Your task to perform on an android device: check google app version Image 0: 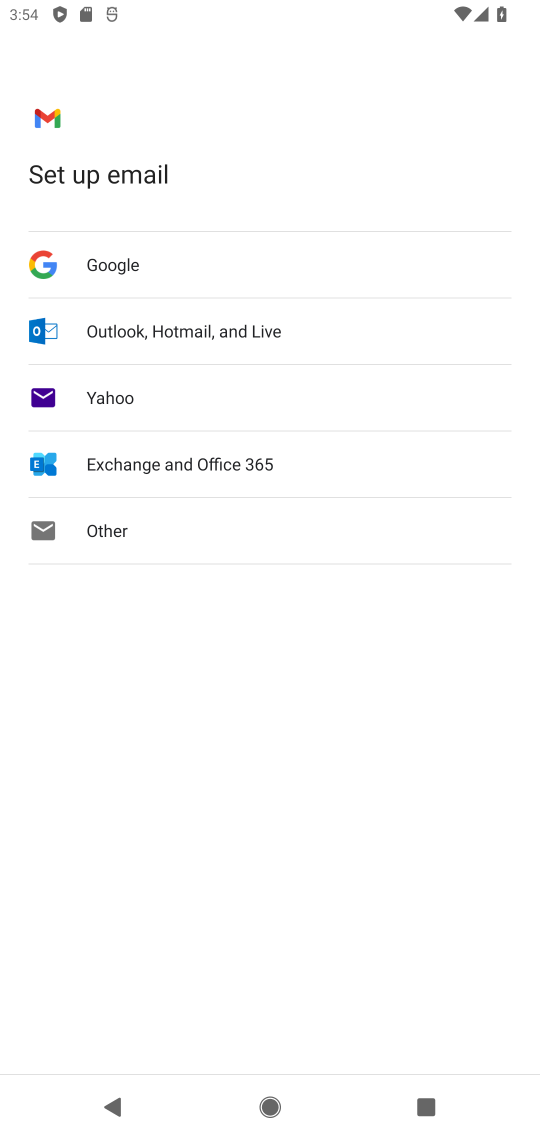
Step 0: press home button
Your task to perform on an android device: check google app version Image 1: 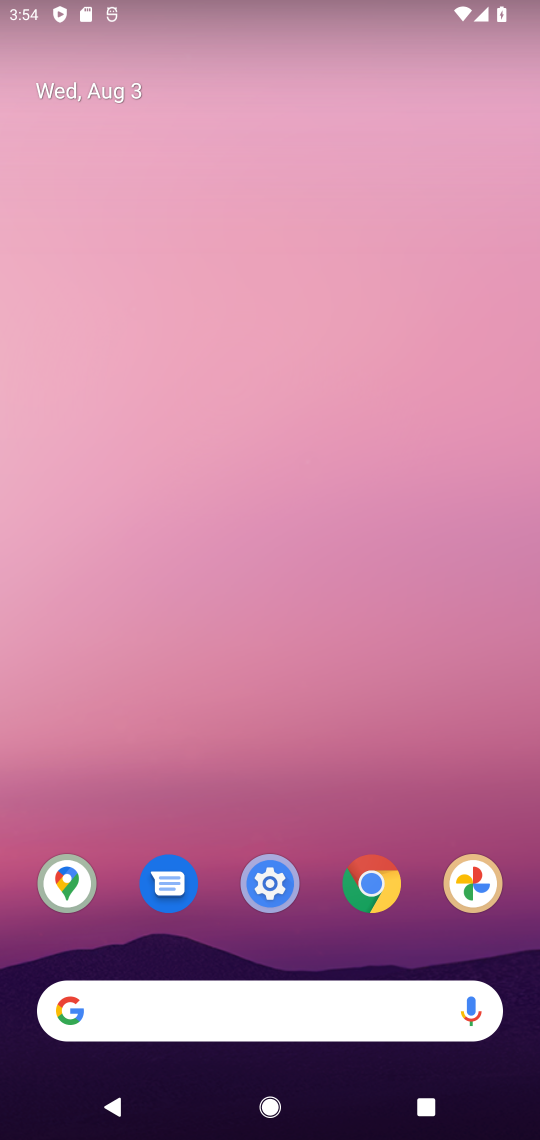
Step 1: click (75, 1005)
Your task to perform on an android device: check google app version Image 2: 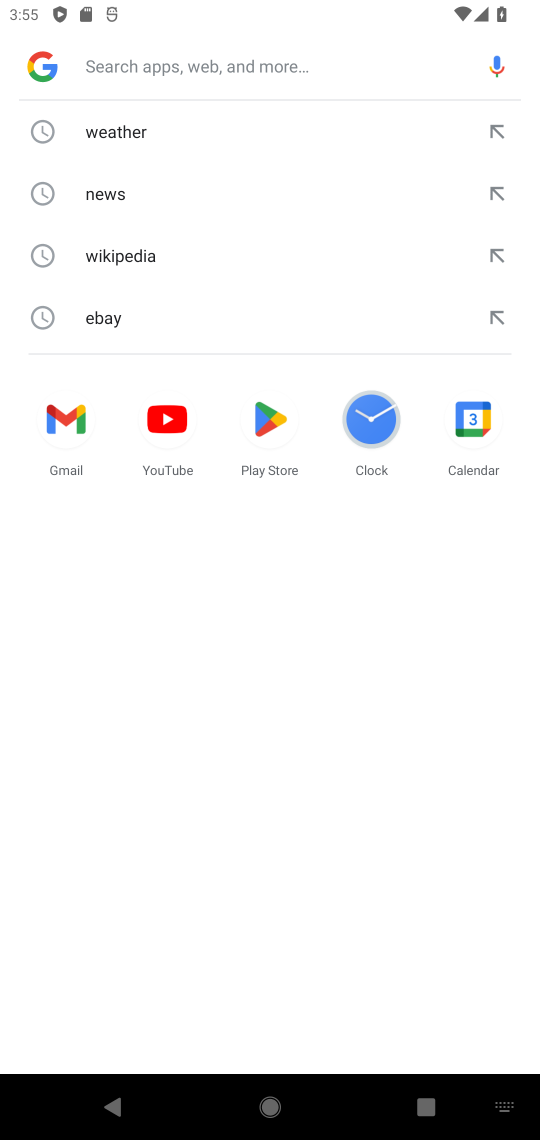
Step 2: click (38, 68)
Your task to perform on an android device: check google app version Image 3: 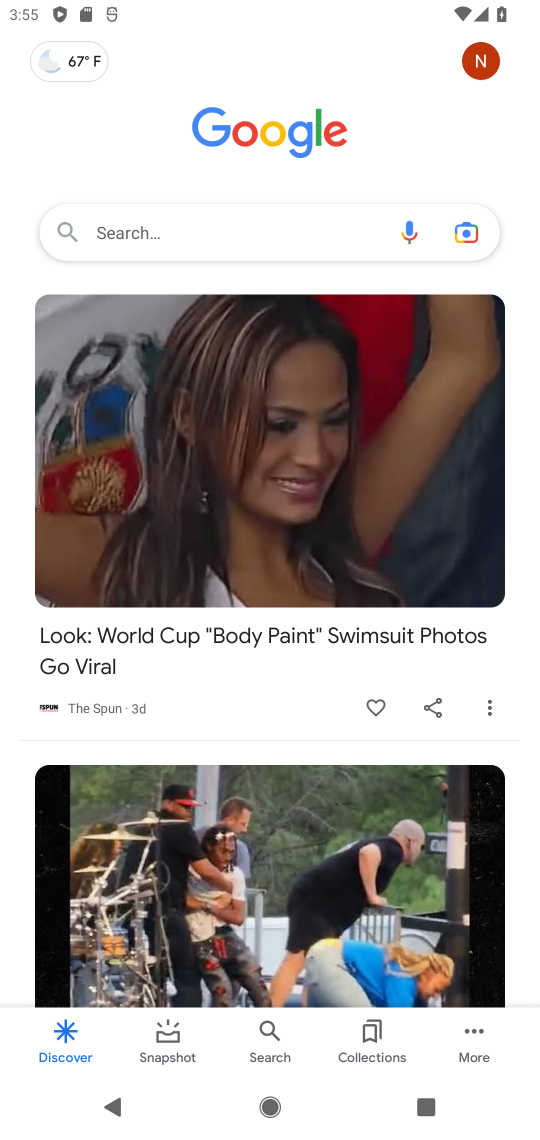
Step 3: click (469, 1060)
Your task to perform on an android device: check google app version Image 4: 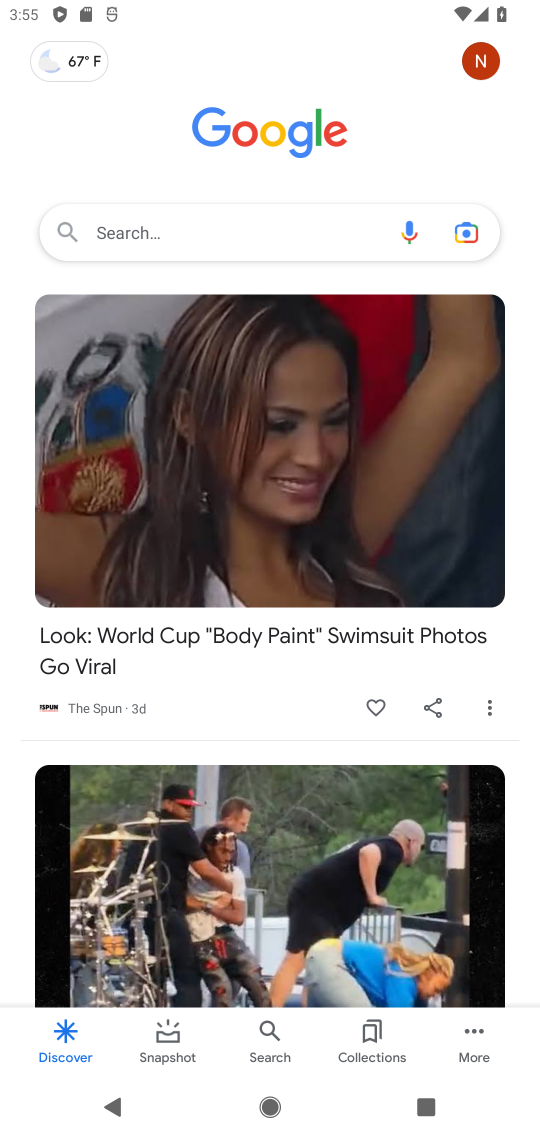
Step 4: click (480, 1028)
Your task to perform on an android device: check google app version Image 5: 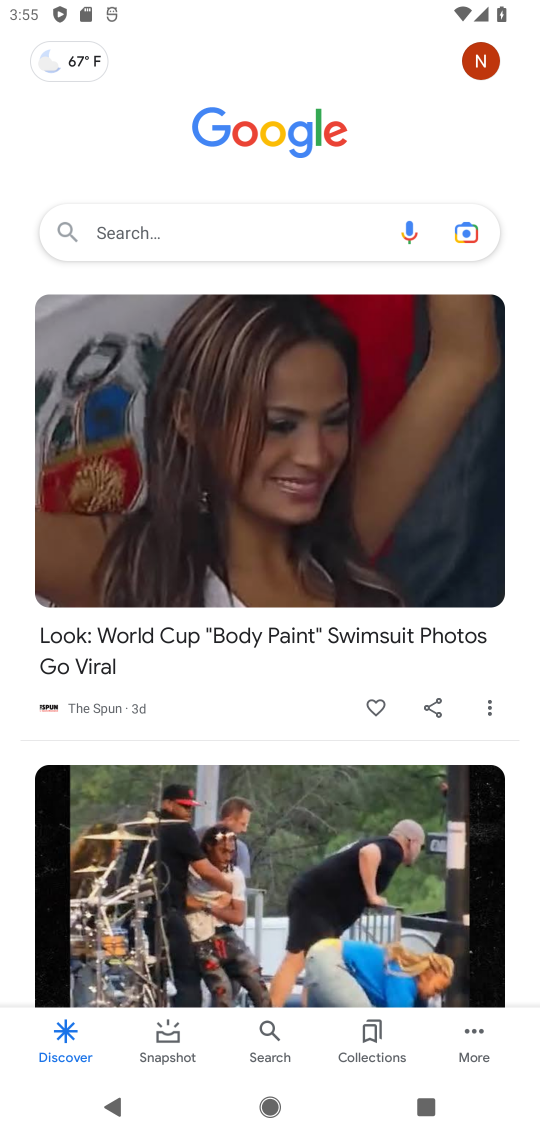
Step 5: click (480, 1042)
Your task to perform on an android device: check google app version Image 6: 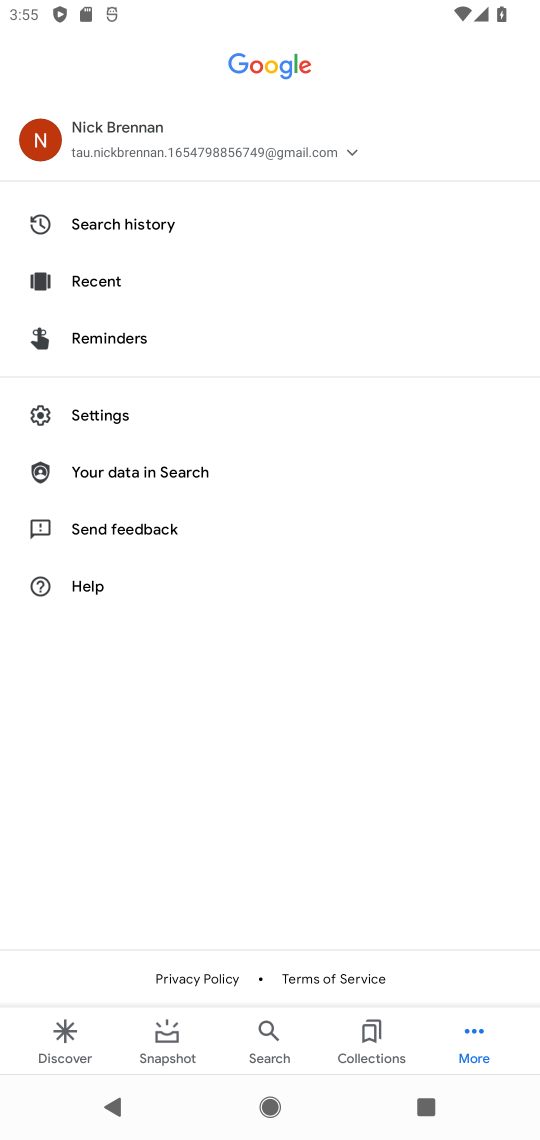
Step 6: click (129, 398)
Your task to perform on an android device: check google app version Image 7: 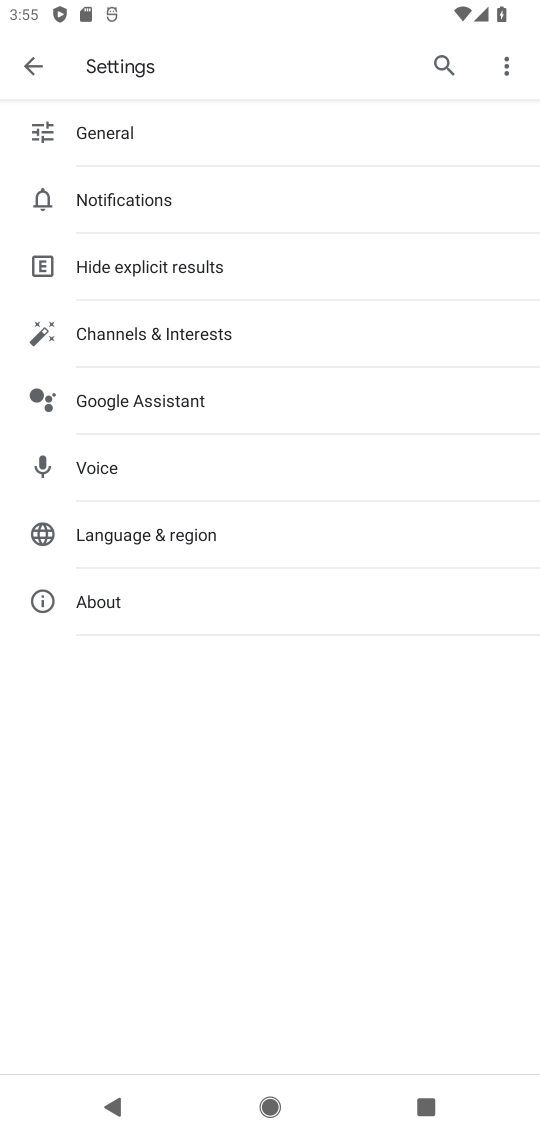
Step 7: click (128, 602)
Your task to perform on an android device: check google app version Image 8: 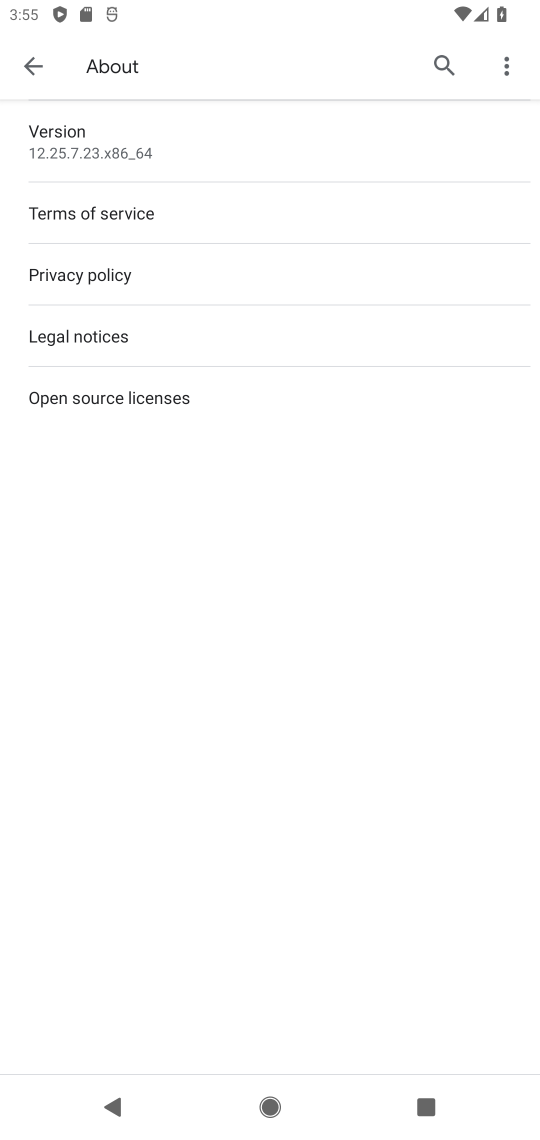
Step 8: task complete